Your task to perform on an android device: turn on notifications settings in the gmail app Image 0: 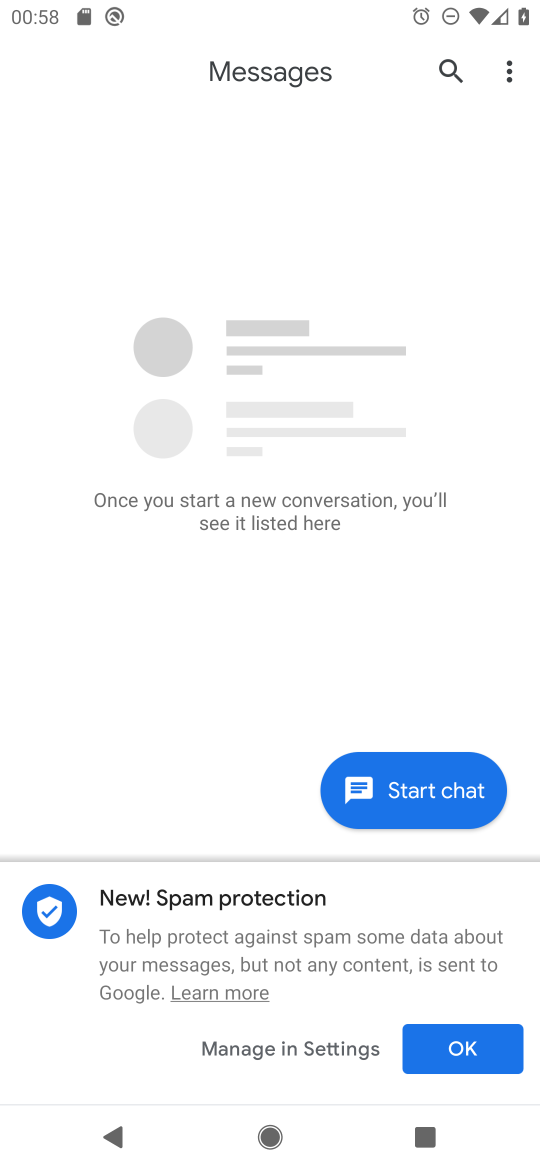
Step 0: press home button
Your task to perform on an android device: turn on notifications settings in the gmail app Image 1: 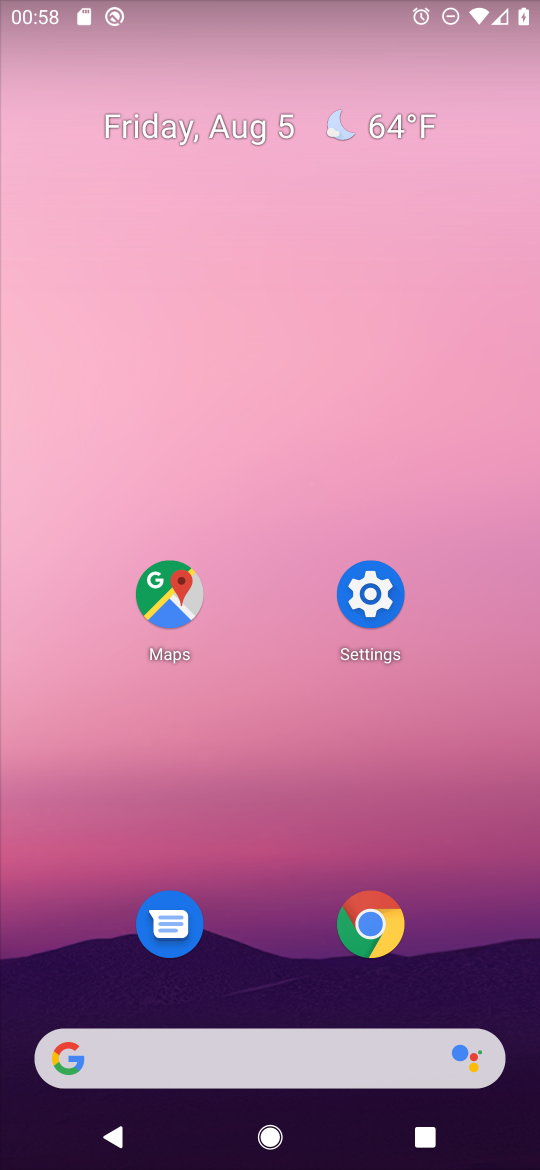
Step 1: drag from (279, 931) to (447, 94)
Your task to perform on an android device: turn on notifications settings in the gmail app Image 2: 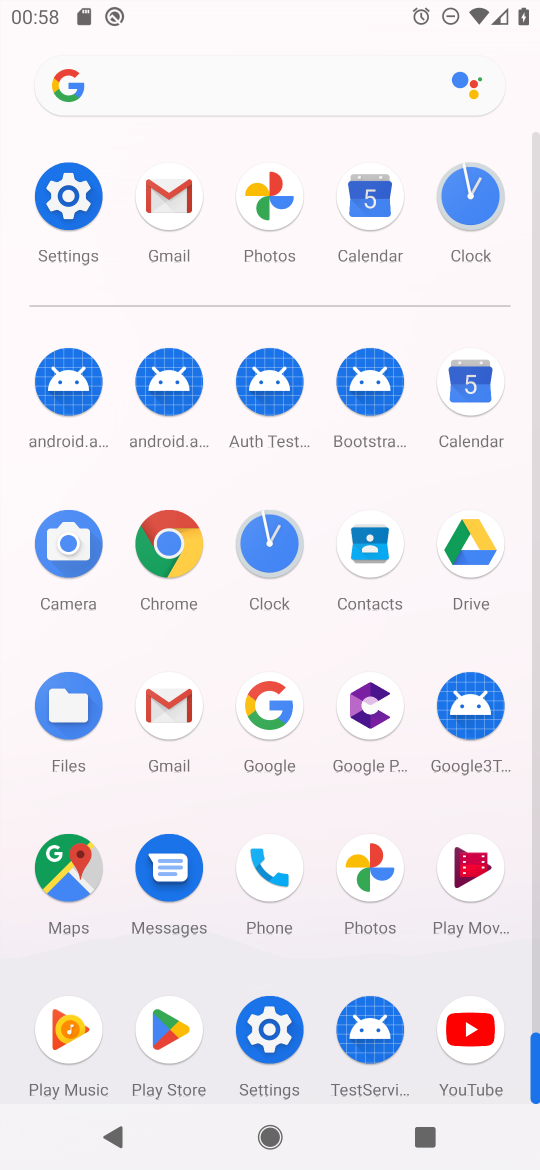
Step 2: click (157, 203)
Your task to perform on an android device: turn on notifications settings in the gmail app Image 3: 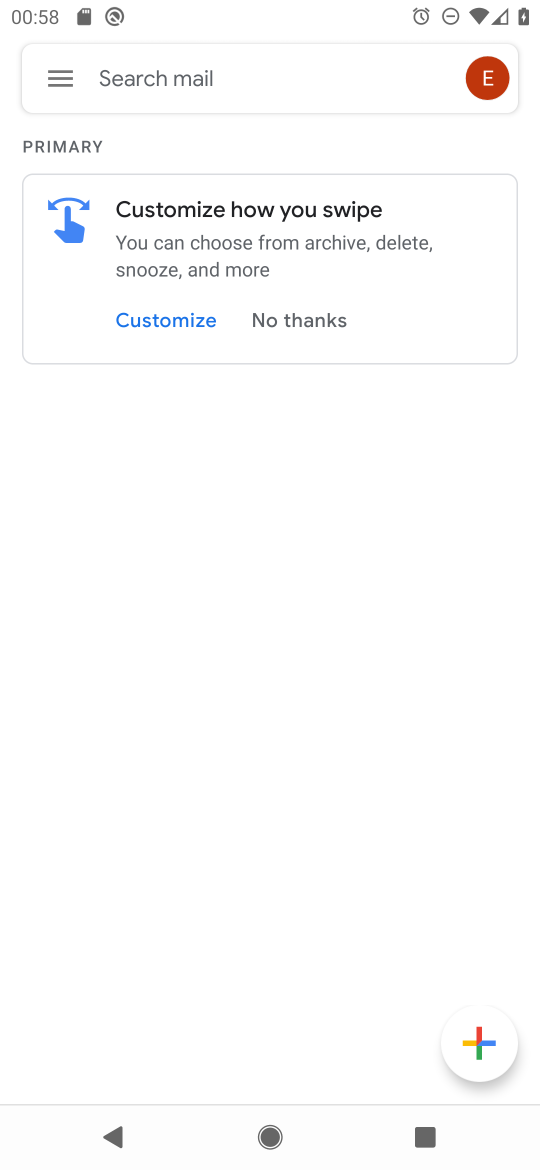
Step 3: click (59, 77)
Your task to perform on an android device: turn on notifications settings in the gmail app Image 4: 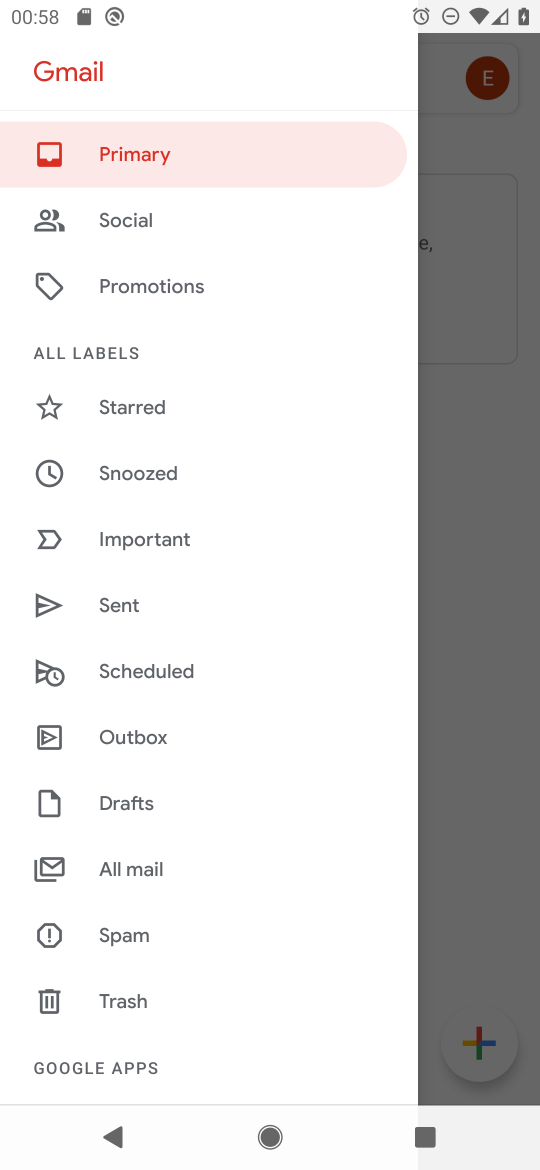
Step 4: drag from (196, 1016) to (319, 268)
Your task to perform on an android device: turn on notifications settings in the gmail app Image 5: 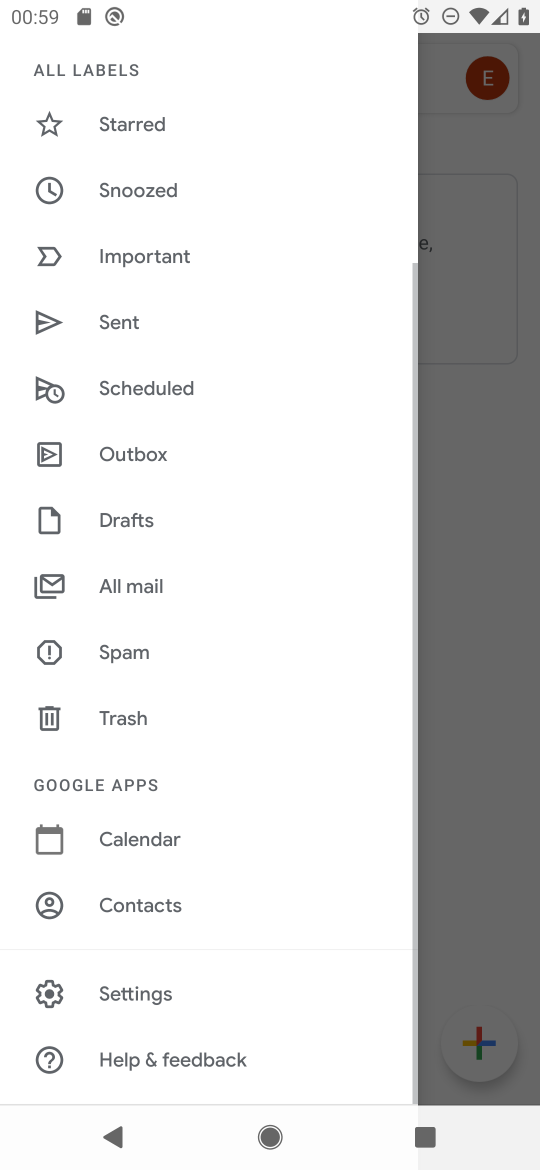
Step 5: click (111, 1002)
Your task to perform on an android device: turn on notifications settings in the gmail app Image 6: 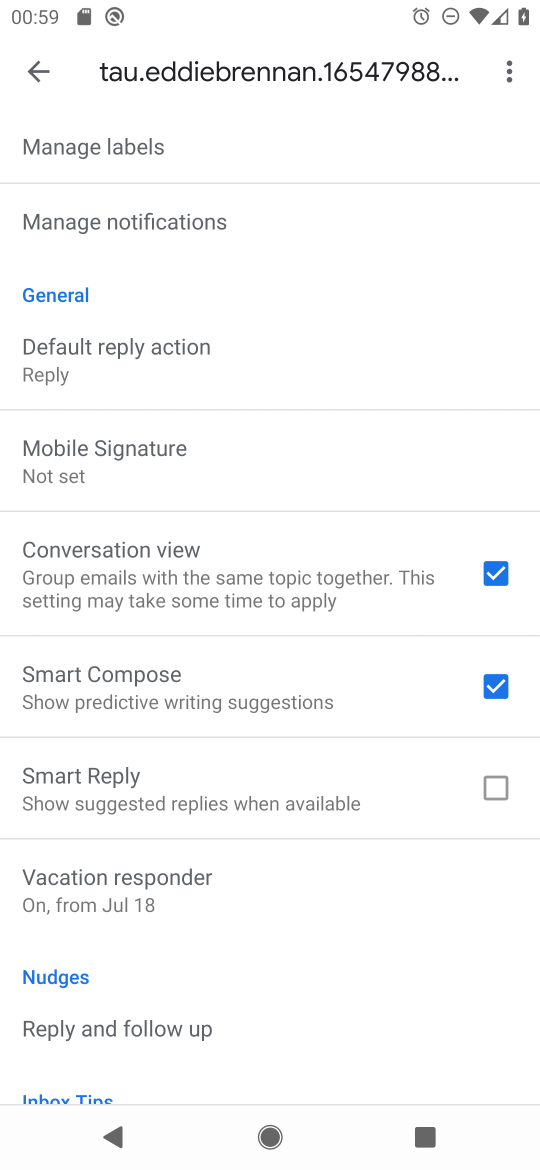
Step 6: drag from (353, 346) to (223, 913)
Your task to perform on an android device: turn on notifications settings in the gmail app Image 7: 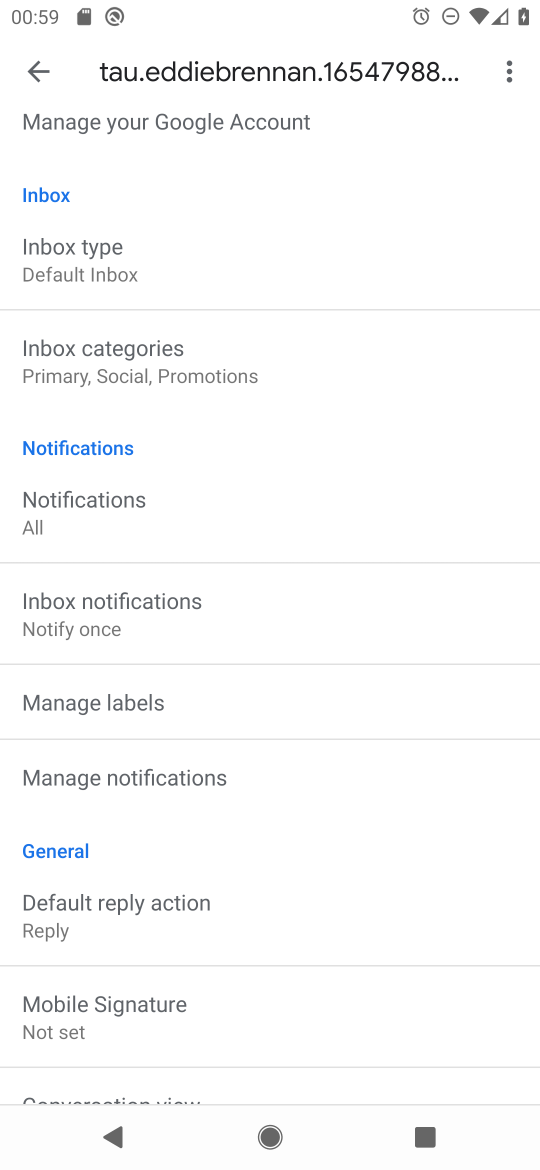
Step 7: click (80, 505)
Your task to perform on an android device: turn on notifications settings in the gmail app Image 8: 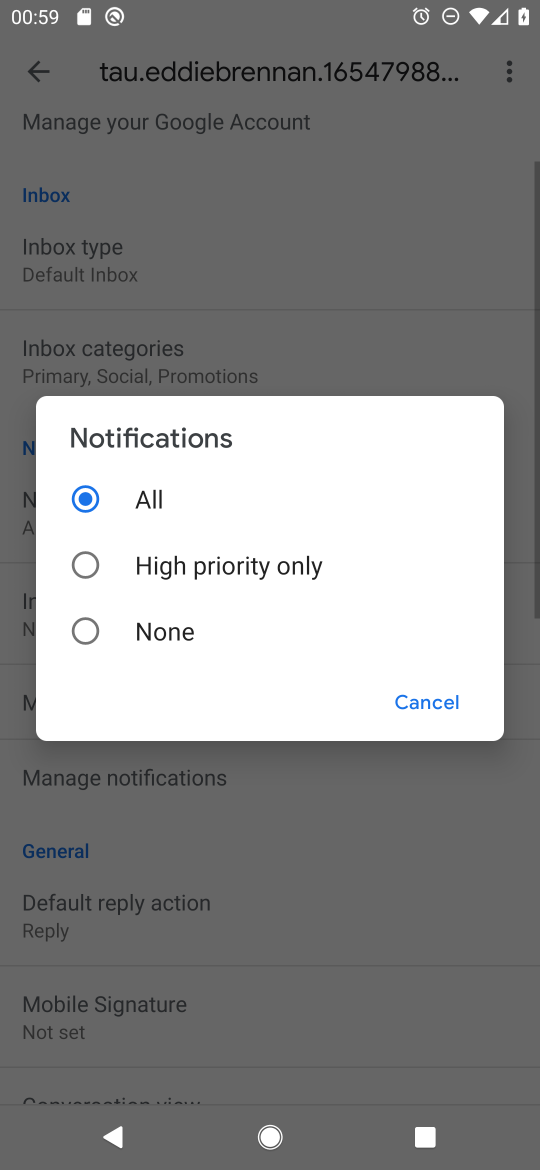
Step 8: task complete